Your task to perform on an android device: toggle notifications settings in the gmail app Image 0: 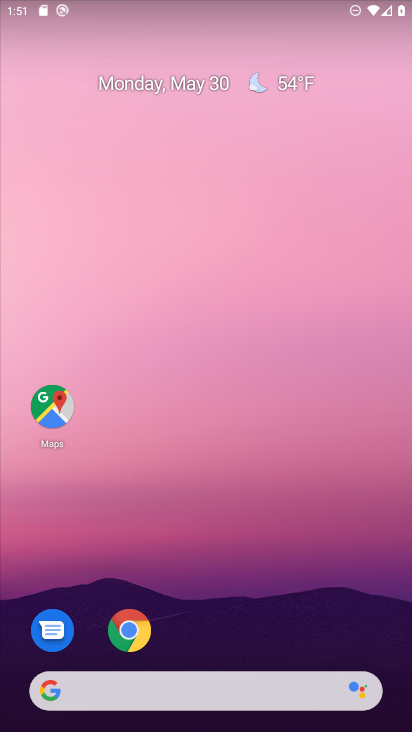
Step 0: drag from (247, 679) to (228, 61)
Your task to perform on an android device: toggle notifications settings in the gmail app Image 1: 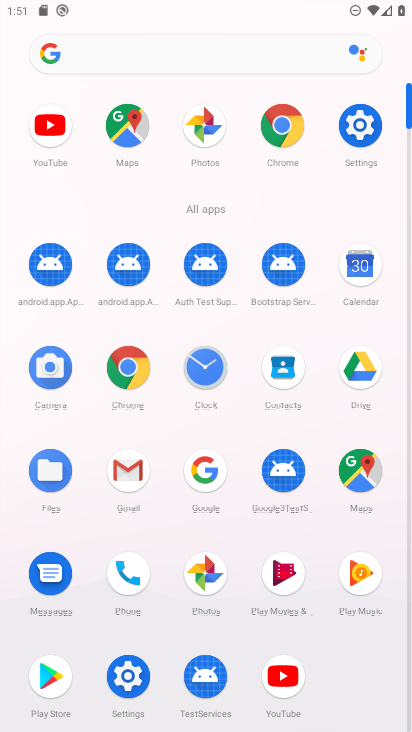
Step 1: click (132, 476)
Your task to perform on an android device: toggle notifications settings in the gmail app Image 2: 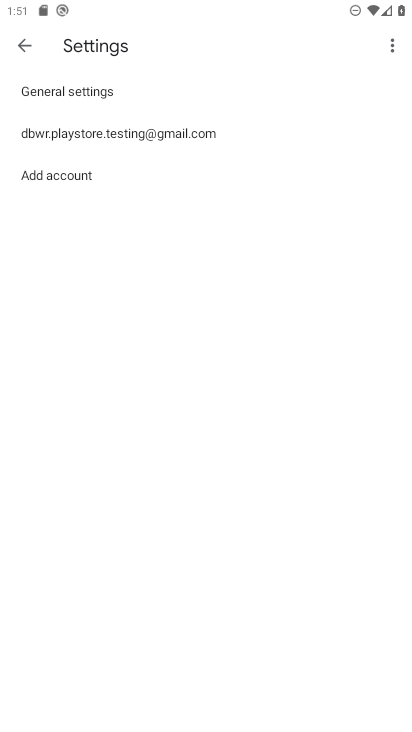
Step 2: click (137, 127)
Your task to perform on an android device: toggle notifications settings in the gmail app Image 3: 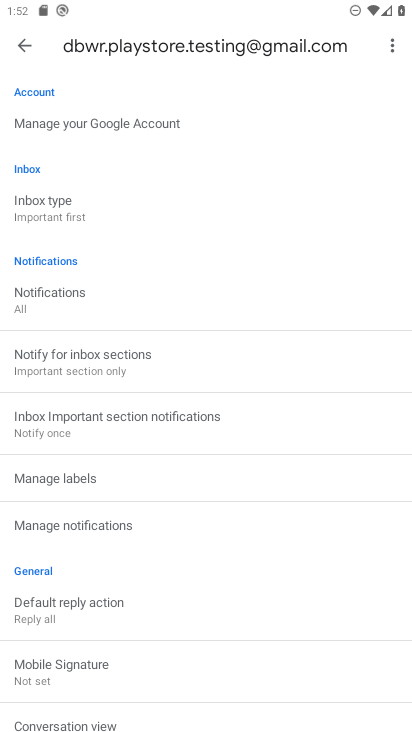
Step 3: click (137, 525)
Your task to perform on an android device: toggle notifications settings in the gmail app Image 4: 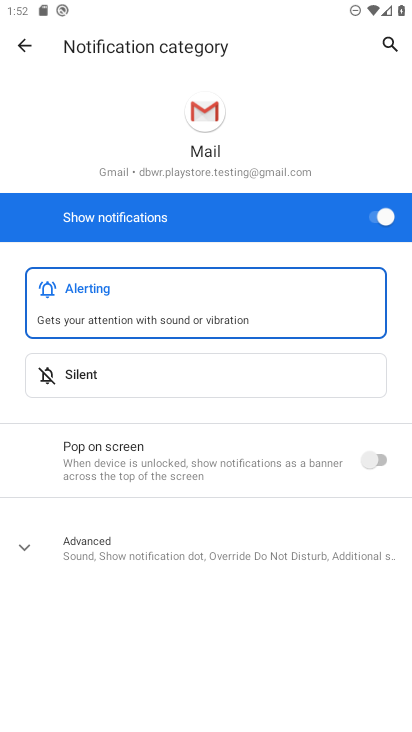
Step 4: click (376, 217)
Your task to perform on an android device: toggle notifications settings in the gmail app Image 5: 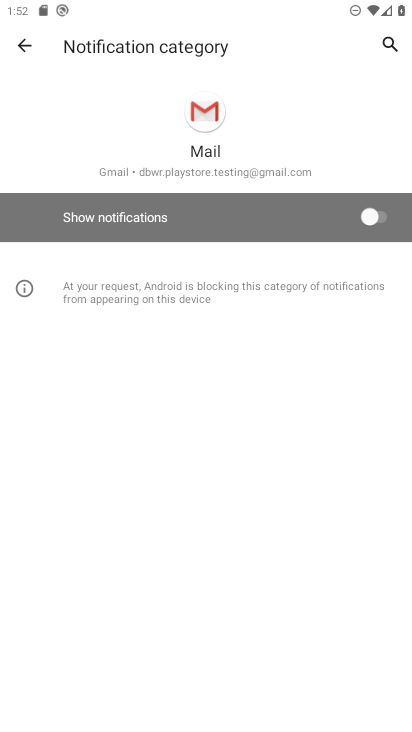
Step 5: task complete